Your task to perform on an android device: toggle data saver in the chrome app Image 0: 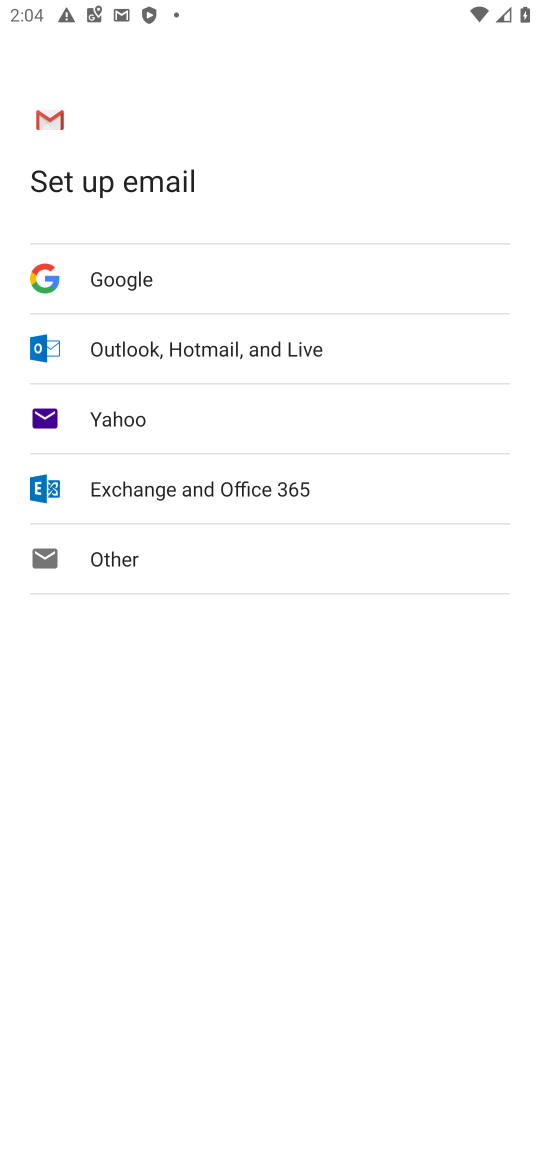
Step 0: press home button
Your task to perform on an android device: toggle data saver in the chrome app Image 1: 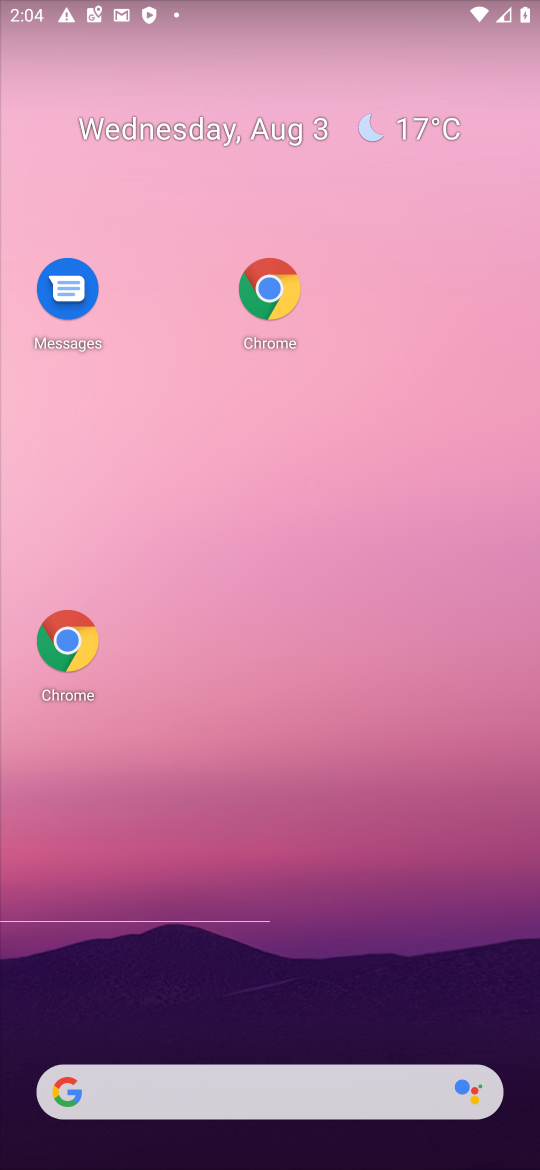
Step 1: drag from (246, 1031) to (356, 205)
Your task to perform on an android device: toggle data saver in the chrome app Image 2: 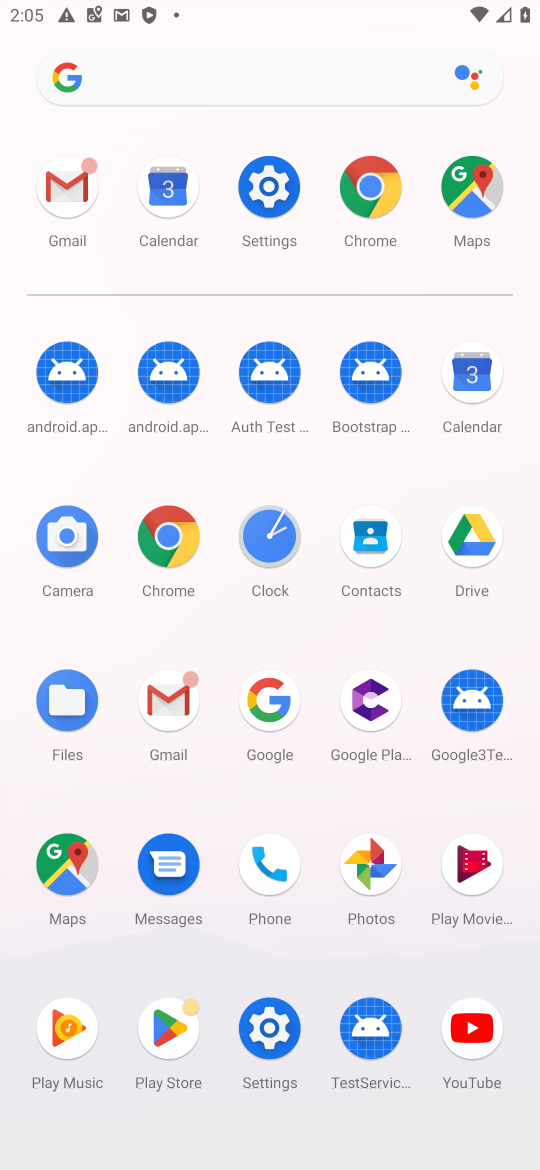
Step 2: click (259, 218)
Your task to perform on an android device: toggle data saver in the chrome app Image 3: 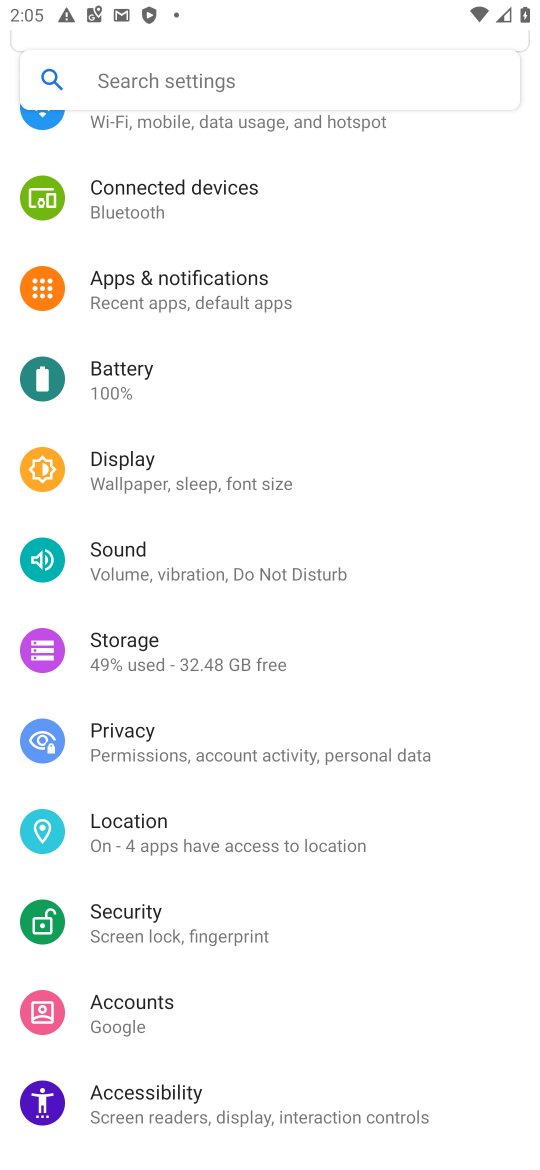
Step 3: drag from (291, 1088) to (280, 401)
Your task to perform on an android device: toggle data saver in the chrome app Image 4: 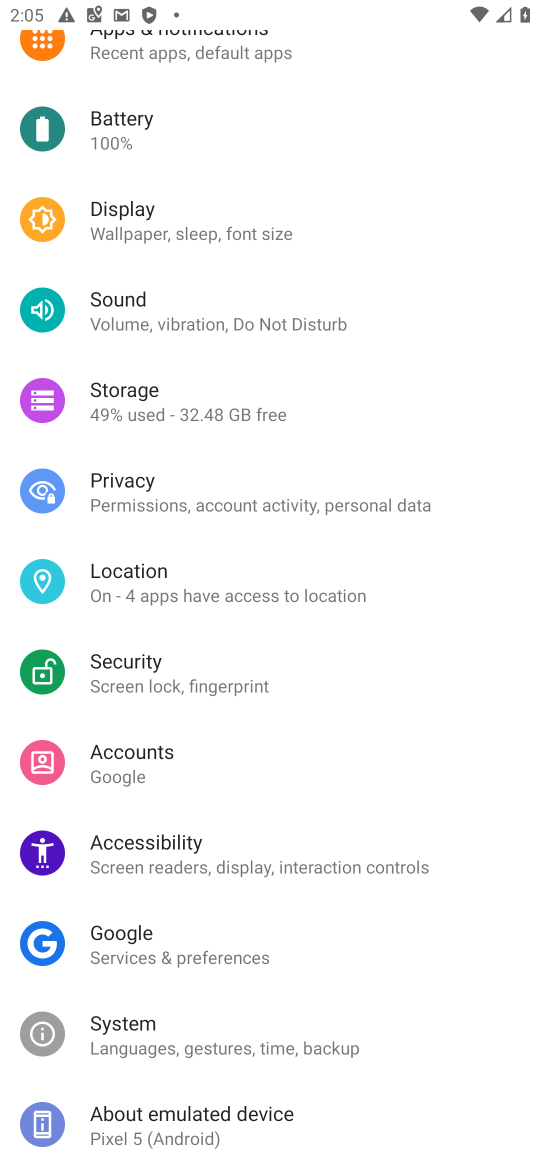
Step 4: press home button
Your task to perform on an android device: toggle data saver in the chrome app Image 5: 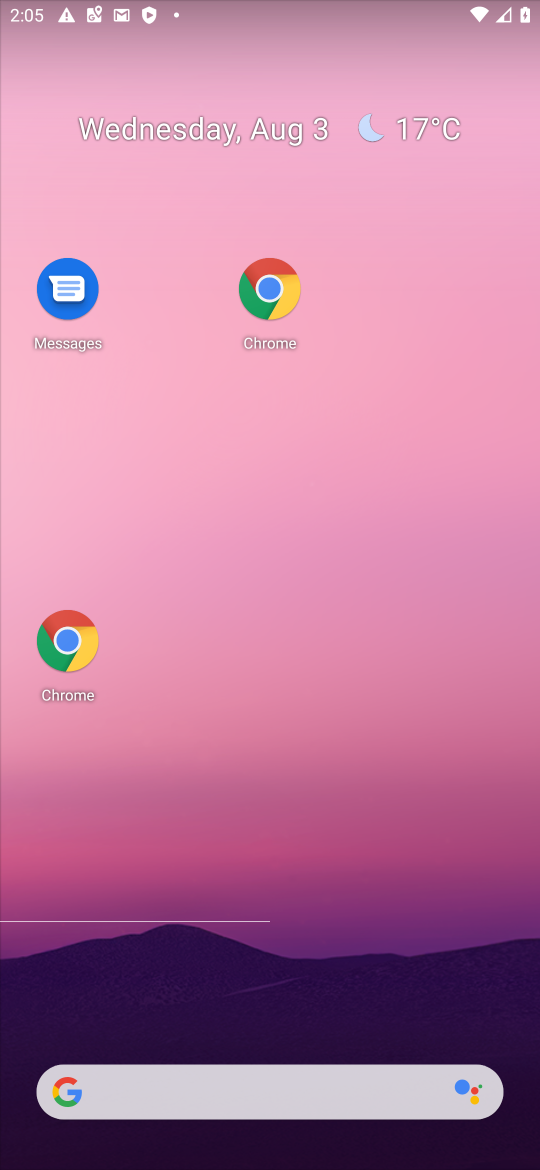
Step 5: click (75, 664)
Your task to perform on an android device: toggle data saver in the chrome app Image 6: 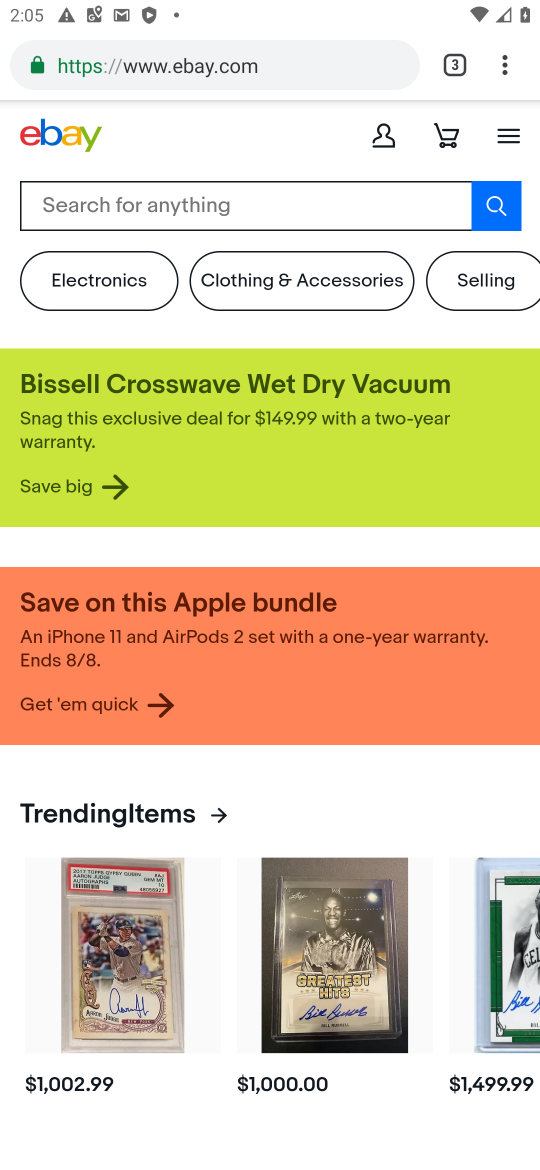
Step 6: click (498, 66)
Your task to perform on an android device: toggle data saver in the chrome app Image 7: 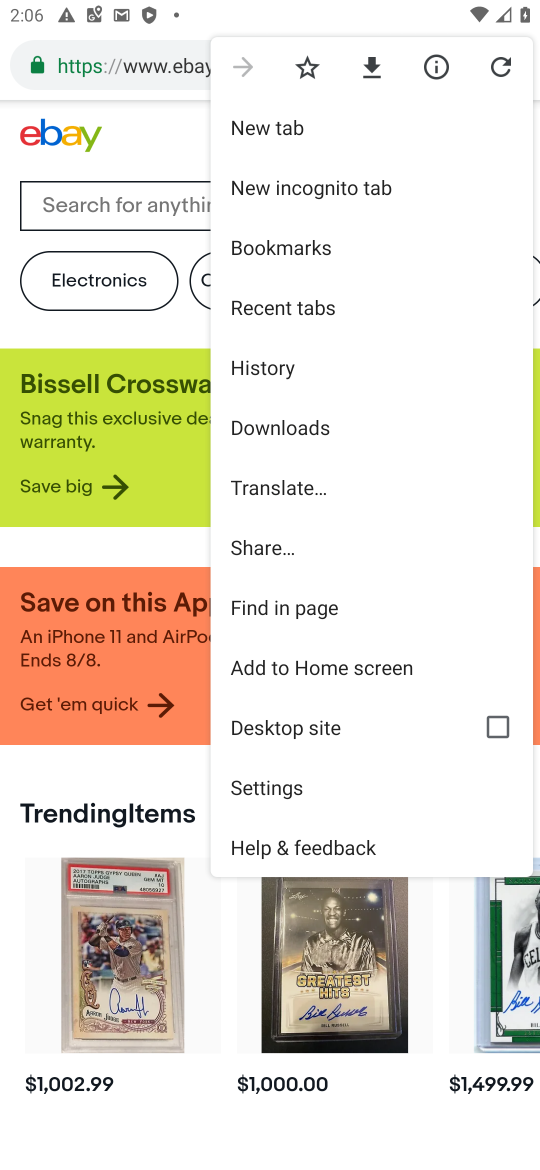
Step 7: click (324, 799)
Your task to perform on an android device: toggle data saver in the chrome app Image 8: 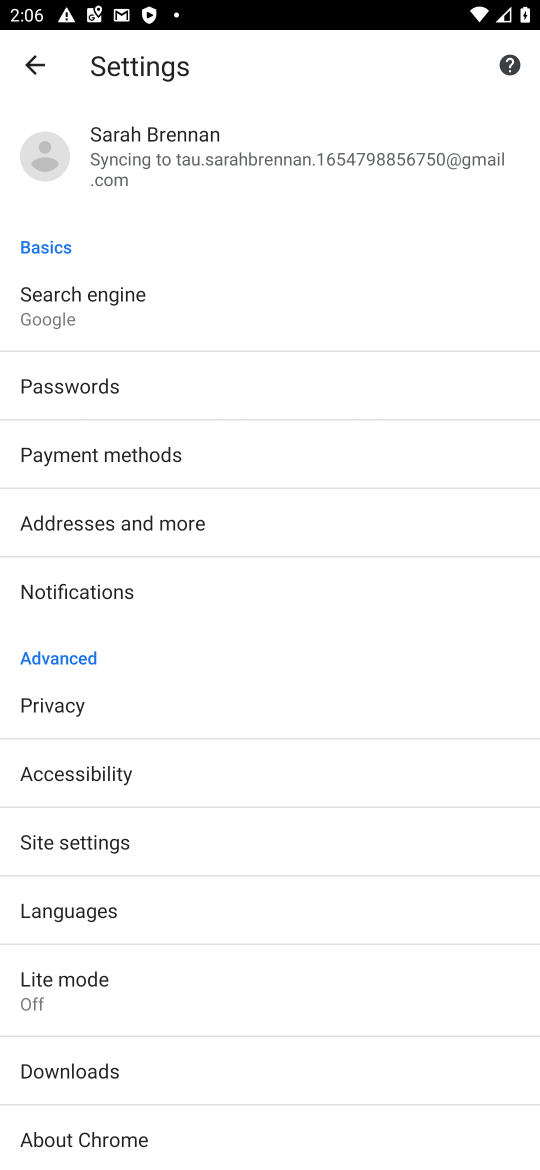
Step 8: click (332, 971)
Your task to perform on an android device: toggle data saver in the chrome app Image 9: 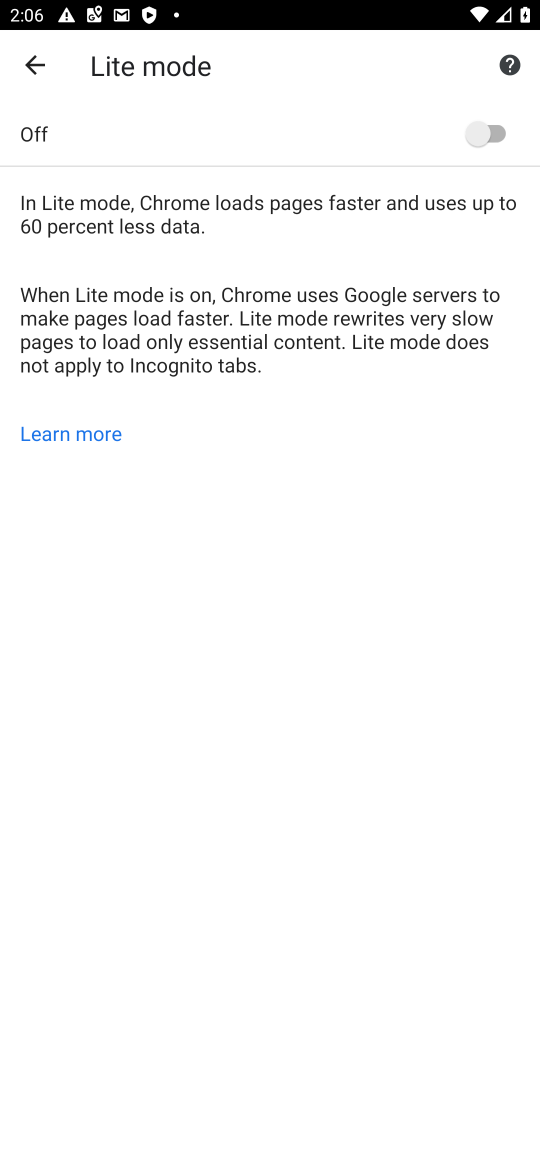
Step 9: click (494, 140)
Your task to perform on an android device: toggle data saver in the chrome app Image 10: 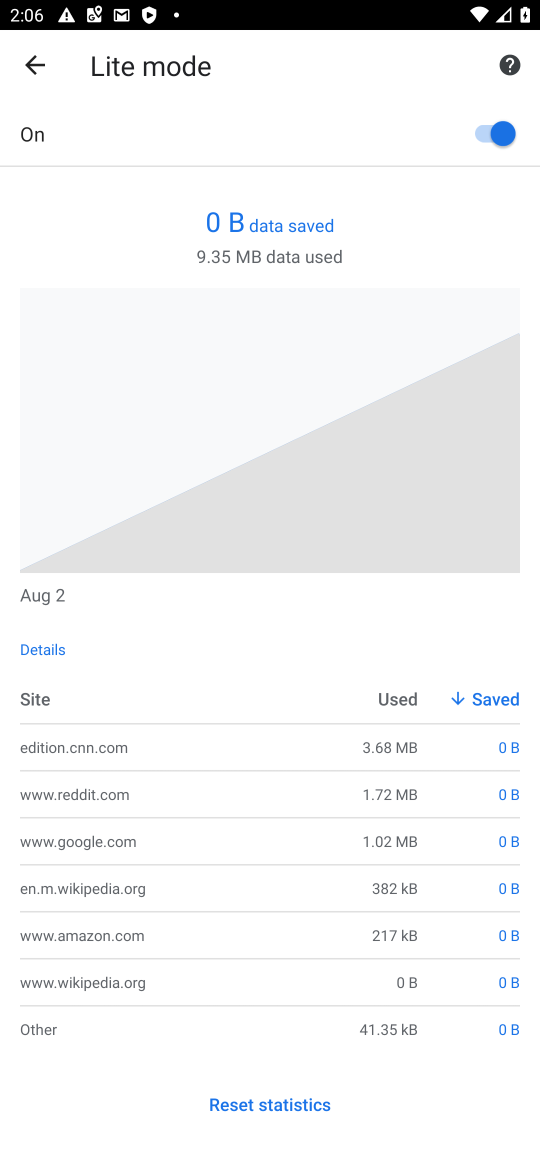
Step 10: task complete